Your task to perform on an android device: turn notification dots off Image 0: 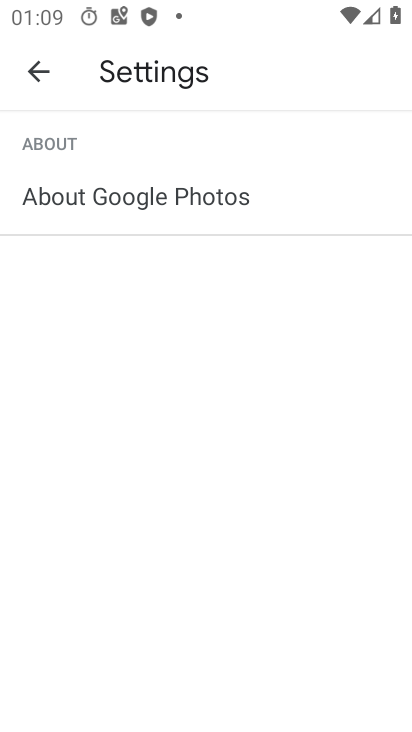
Step 0: press home button
Your task to perform on an android device: turn notification dots off Image 1: 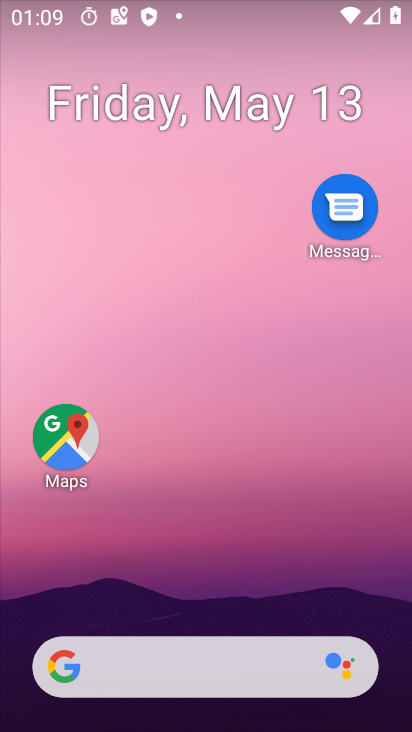
Step 1: drag from (296, 586) to (383, 43)
Your task to perform on an android device: turn notification dots off Image 2: 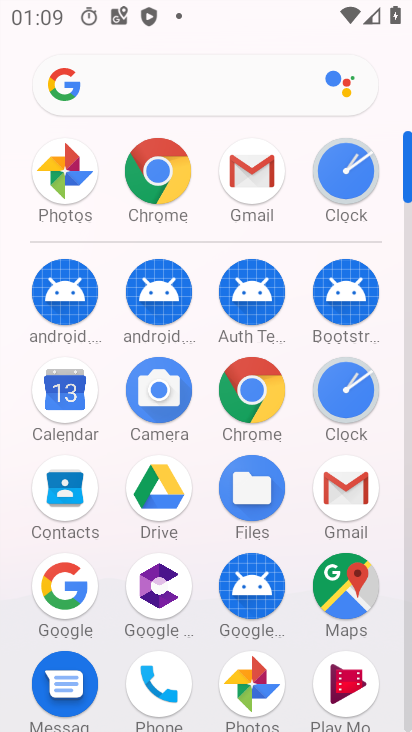
Step 2: drag from (213, 226) to (241, 23)
Your task to perform on an android device: turn notification dots off Image 3: 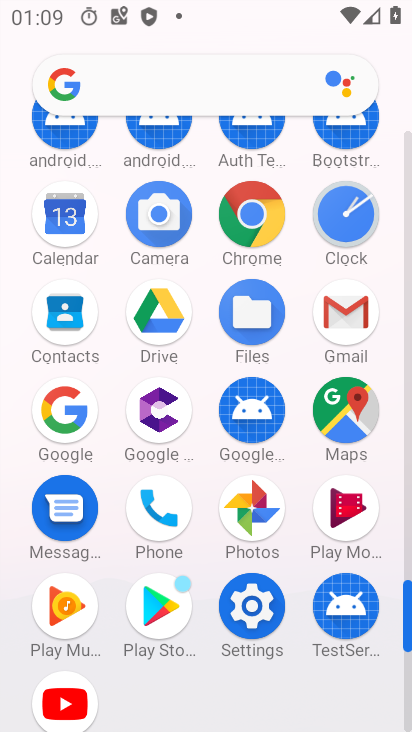
Step 3: click (237, 600)
Your task to perform on an android device: turn notification dots off Image 4: 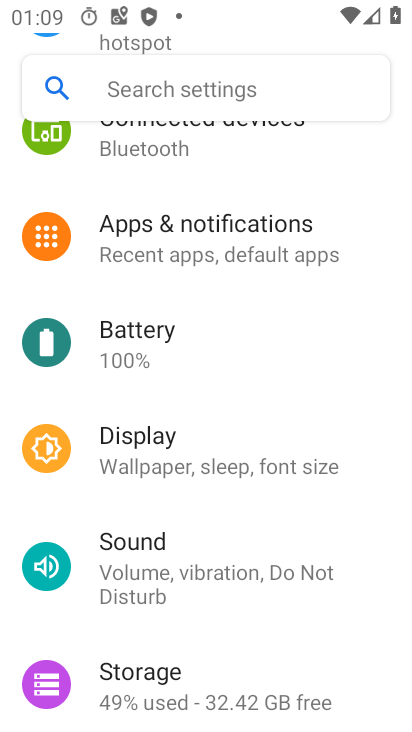
Step 4: drag from (285, 606) to (273, 664)
Your task to perform on an android device: turn notification dots off Image 5: 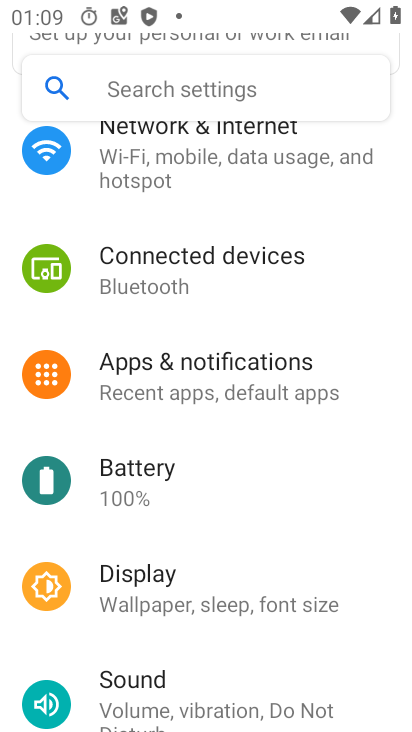
Step 5: click (278, 379)
Your task to perform on an android device: turn notification dots off Image 6: 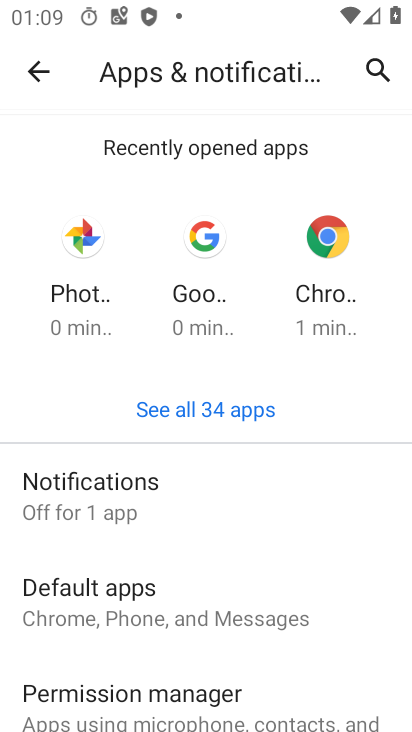
Step 6: click (97, 480)
Your task to perform on an android device: turn notification dots off Image 7: 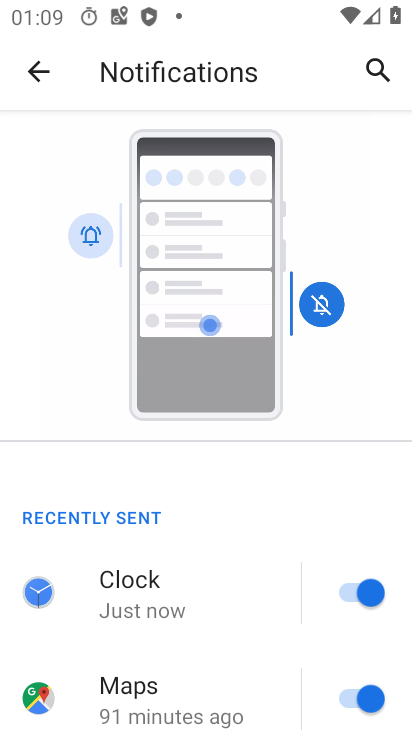
Step 7: drag from (267, 609) to (333, 128)
Your task to perform on an android device: turn notification dots off Image 8: 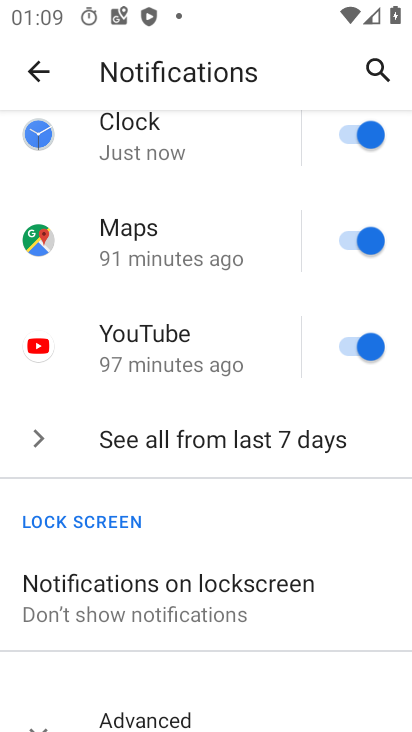
Step 8: drag from (302, 636) to (262, 157)
Your task to perform on an android device: turn notification dots off Image 9: 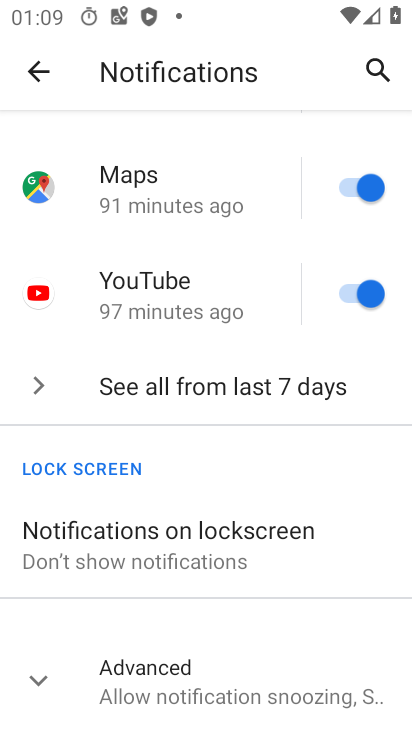
Step 9: click (217, 704)
Your task to perform on an android device: turn notification dots off Image 10: 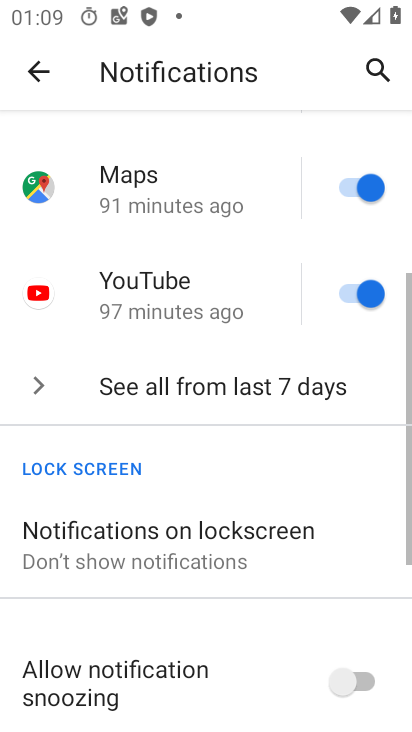
Step 10: drag from (235, 684) to (269, 198)
Your task to perform on an android device: turn notification dots off Image 11: 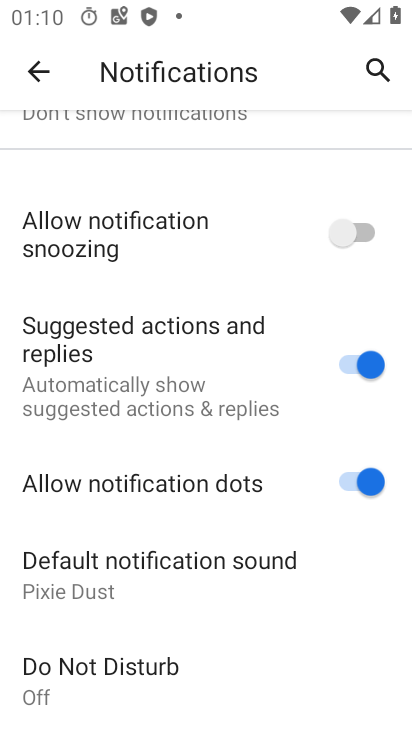
Step 11: click (353, 483)
Your task to perform on an android device: turn notification dots off Image 12: 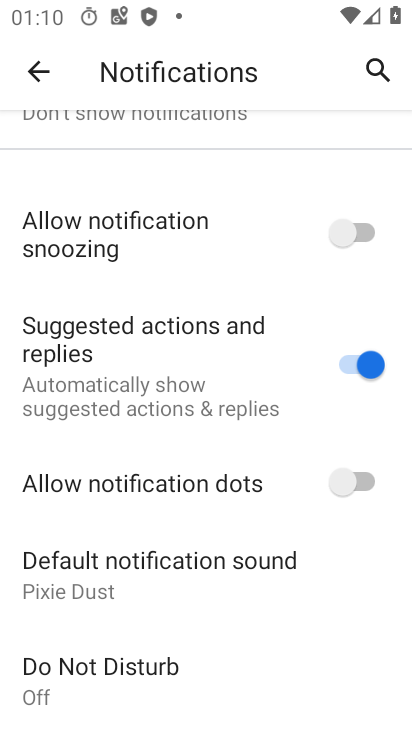
Step 12: task complete